Your task to perform on an android device: Check the news Image 0: 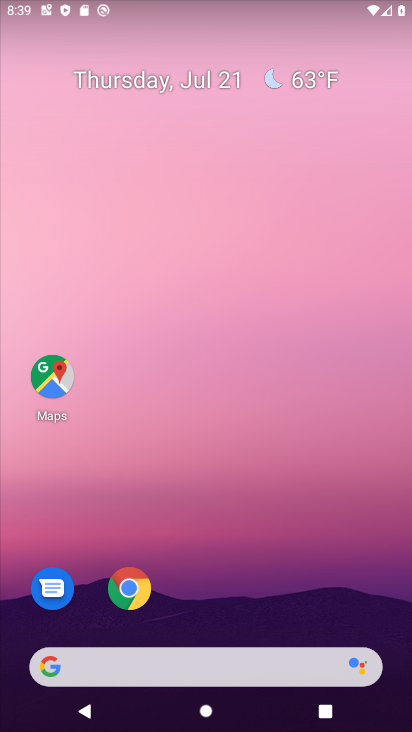
Step 0: click (281, 654)
Your task to perform on an android device: Check the news Image 1: 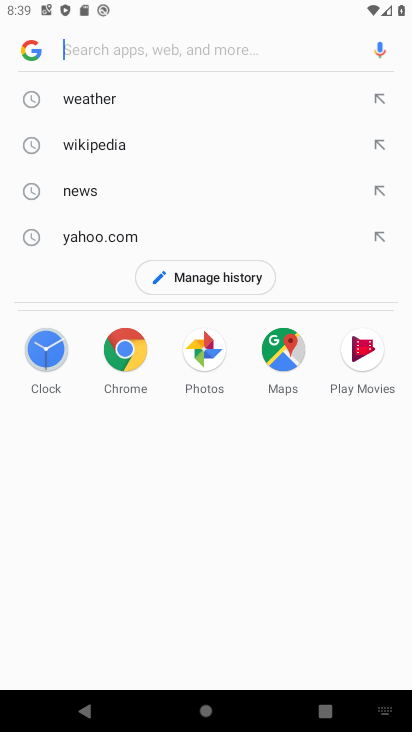
Step 1: type "news"
Your task to perform on an android device: Check the news Image 2: 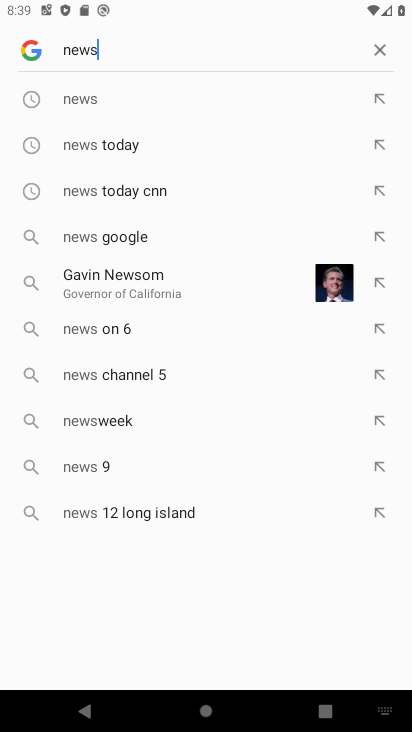
Step 2: click (340, 91)
Your task to perform on an android device: Check the news Image 3: 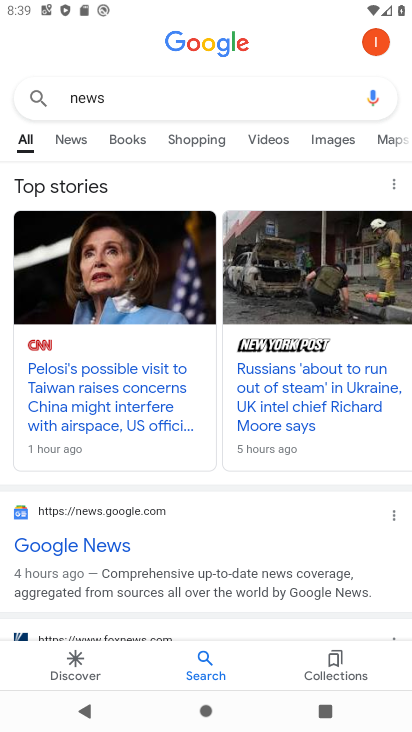
Step 3: click (74, 143)
Your task to perform on an android device: Check the news Image 4: 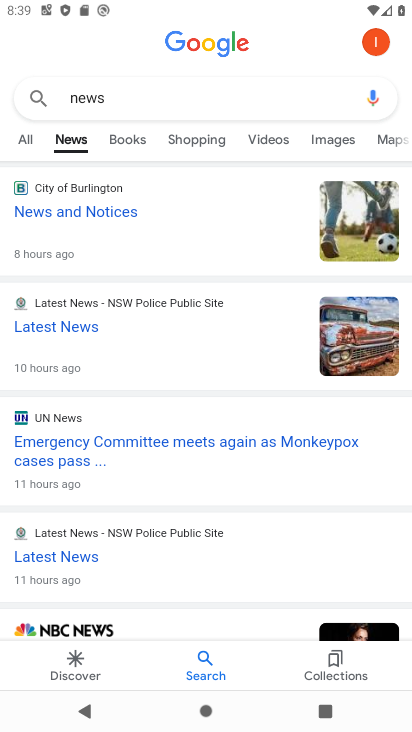
Step 4: task complete